Your task to perform on an android device: toggle priority inbox in the gmail app Image 0: 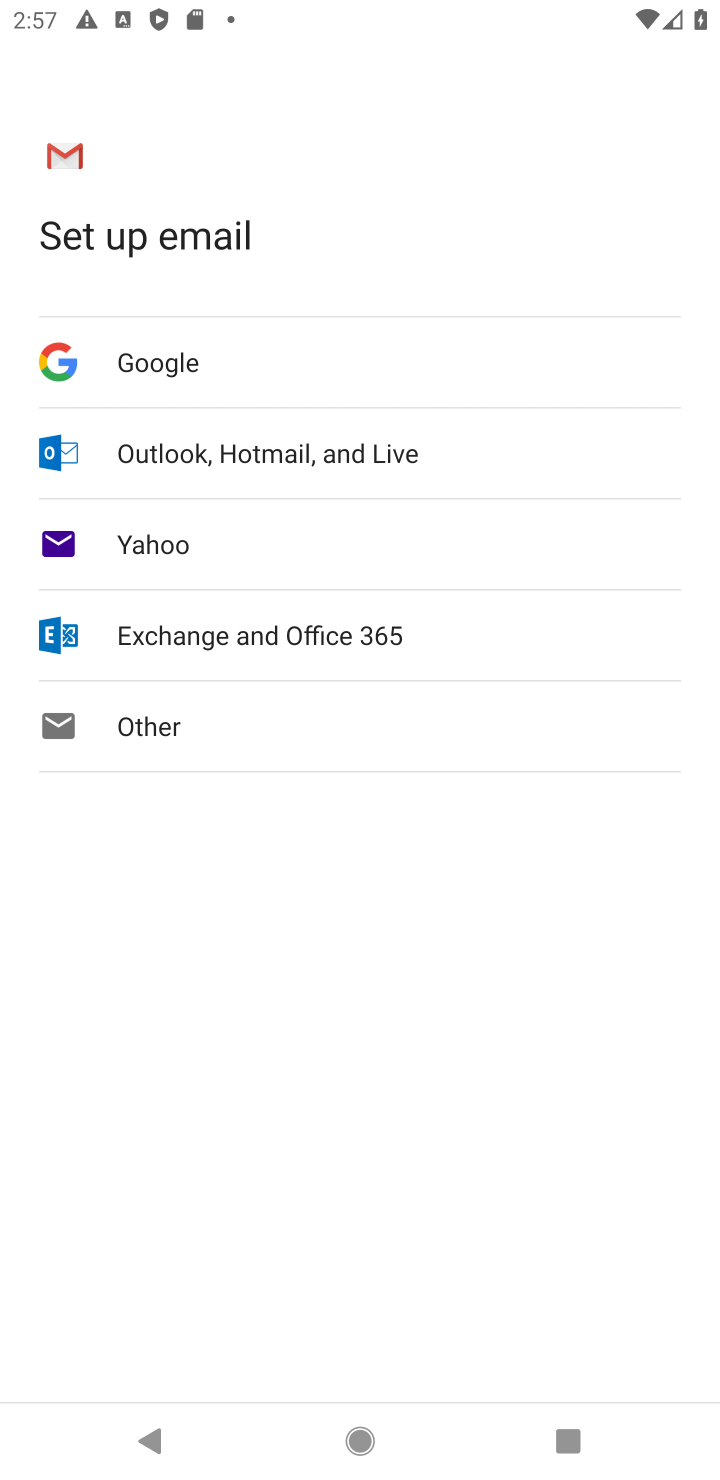
Step 0: press home button
Your task to perform on an android device: toggle priority inbox in the gmail app Image 1: 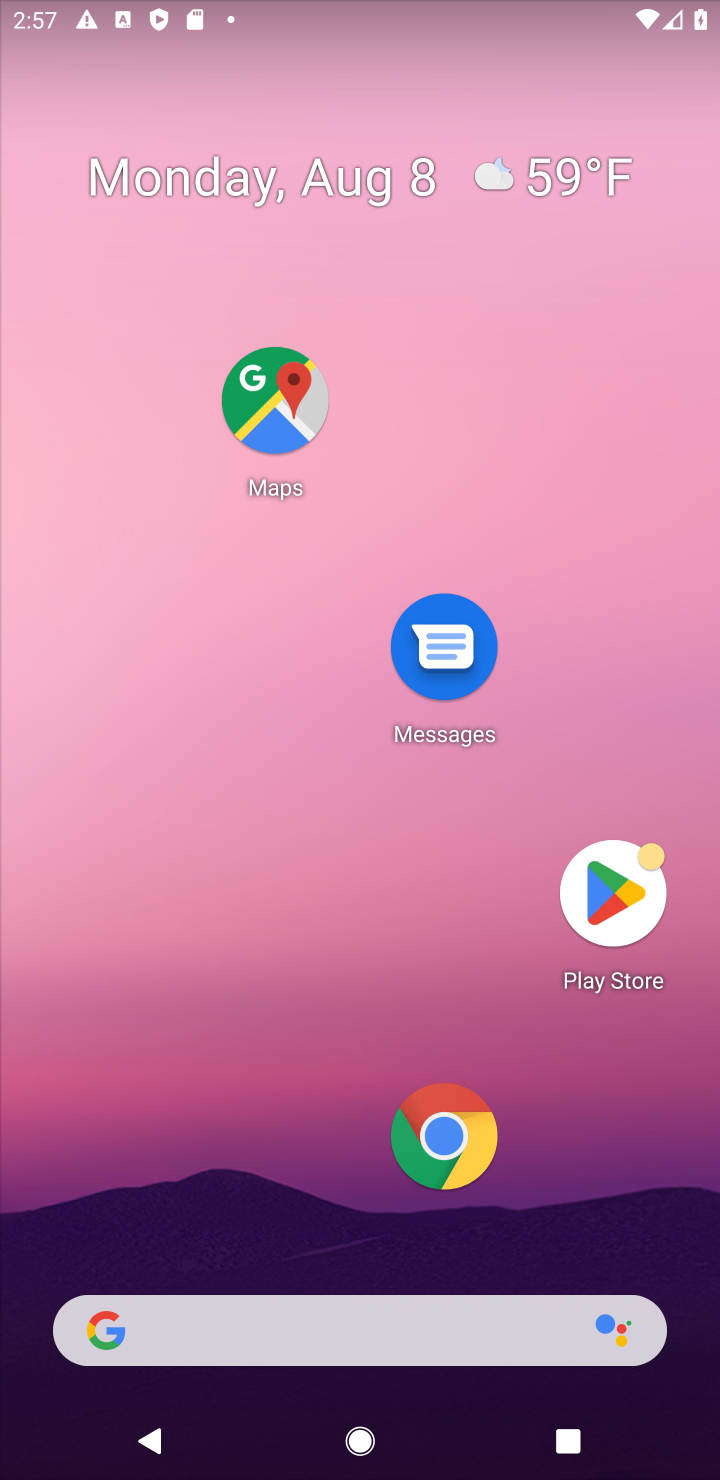
Step 1: drag from (36, 1416) to (588, 437)
Your task to perform on an android device: toggle priority inbox in the gmail app Image 2: 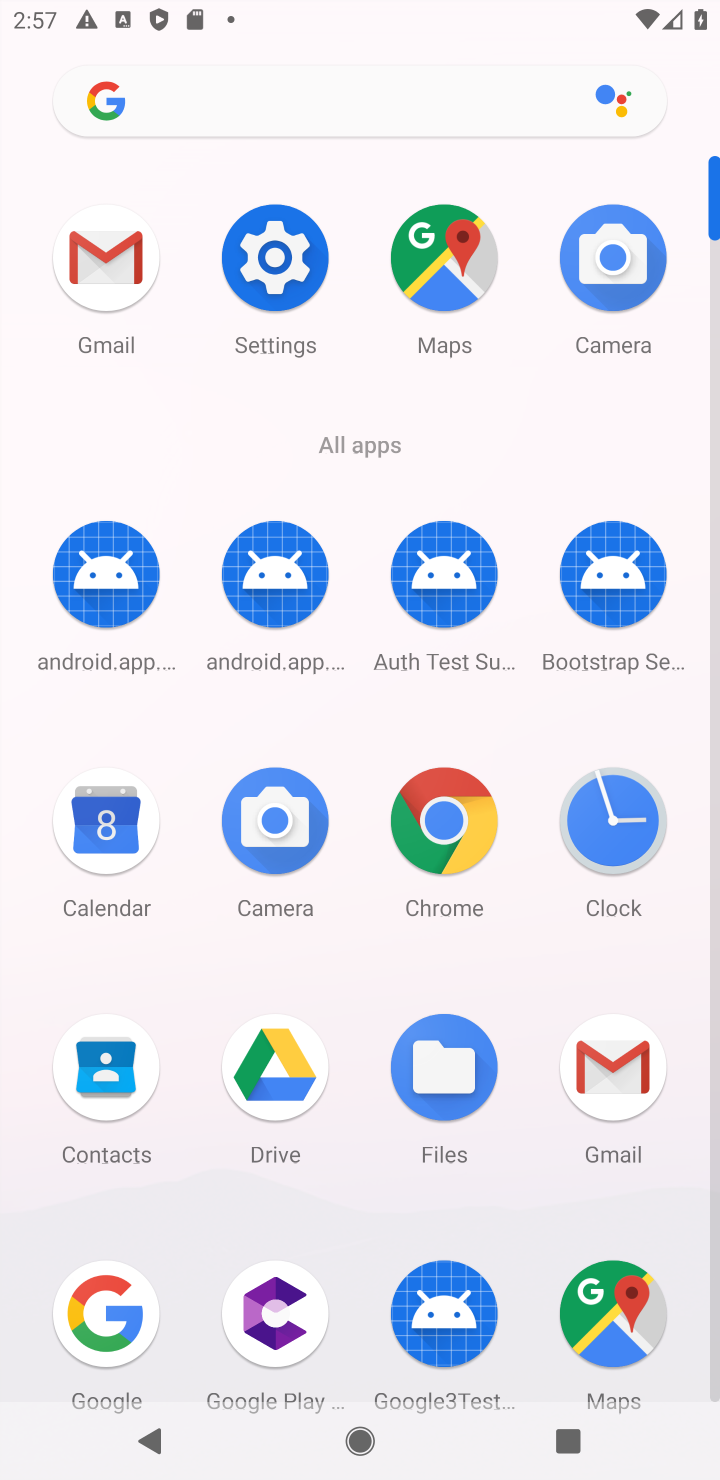
Step 2: click (610, 1048)
Your task to perform on an android device: toggle priority inbox in the gmail app Image 3: 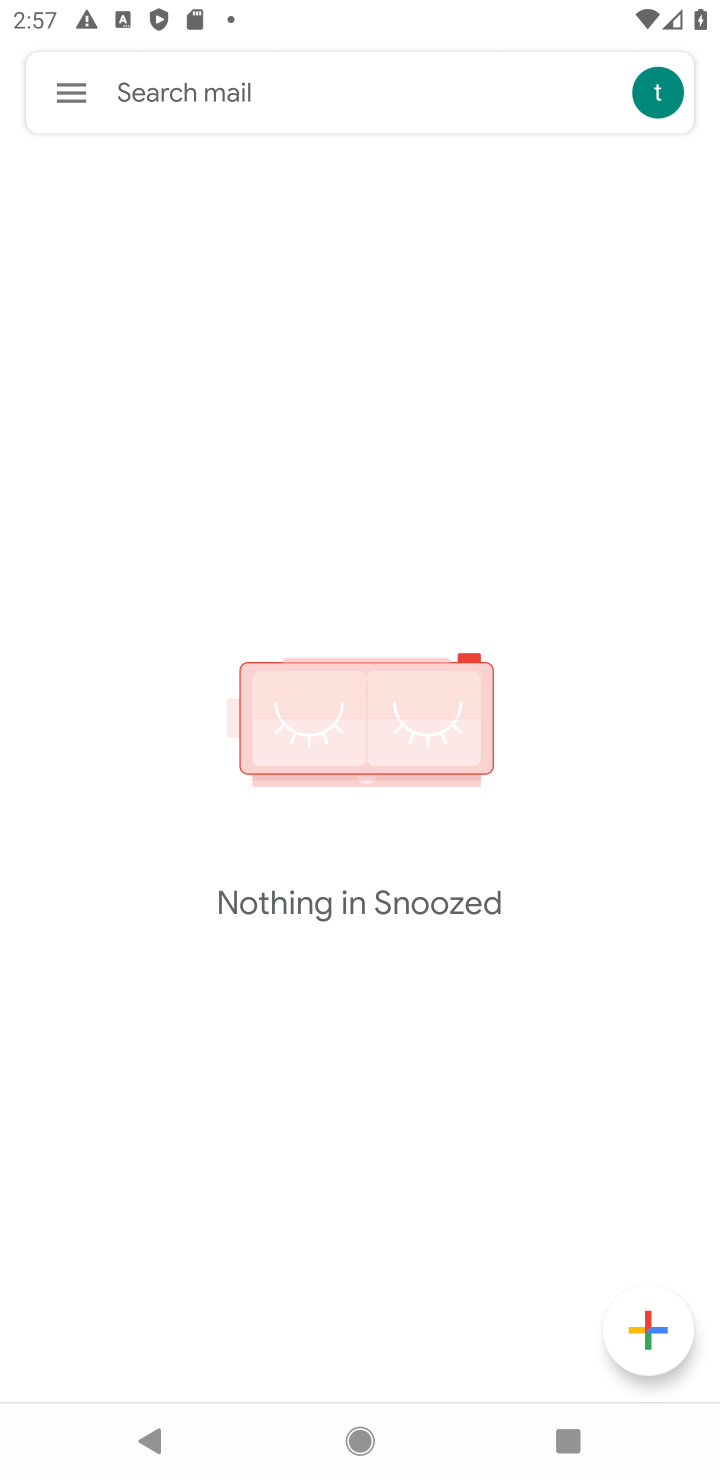
Step 3: click (70, 107)
Your task to perform on an android device: toggle priority inbox in the gmail app Image 4: 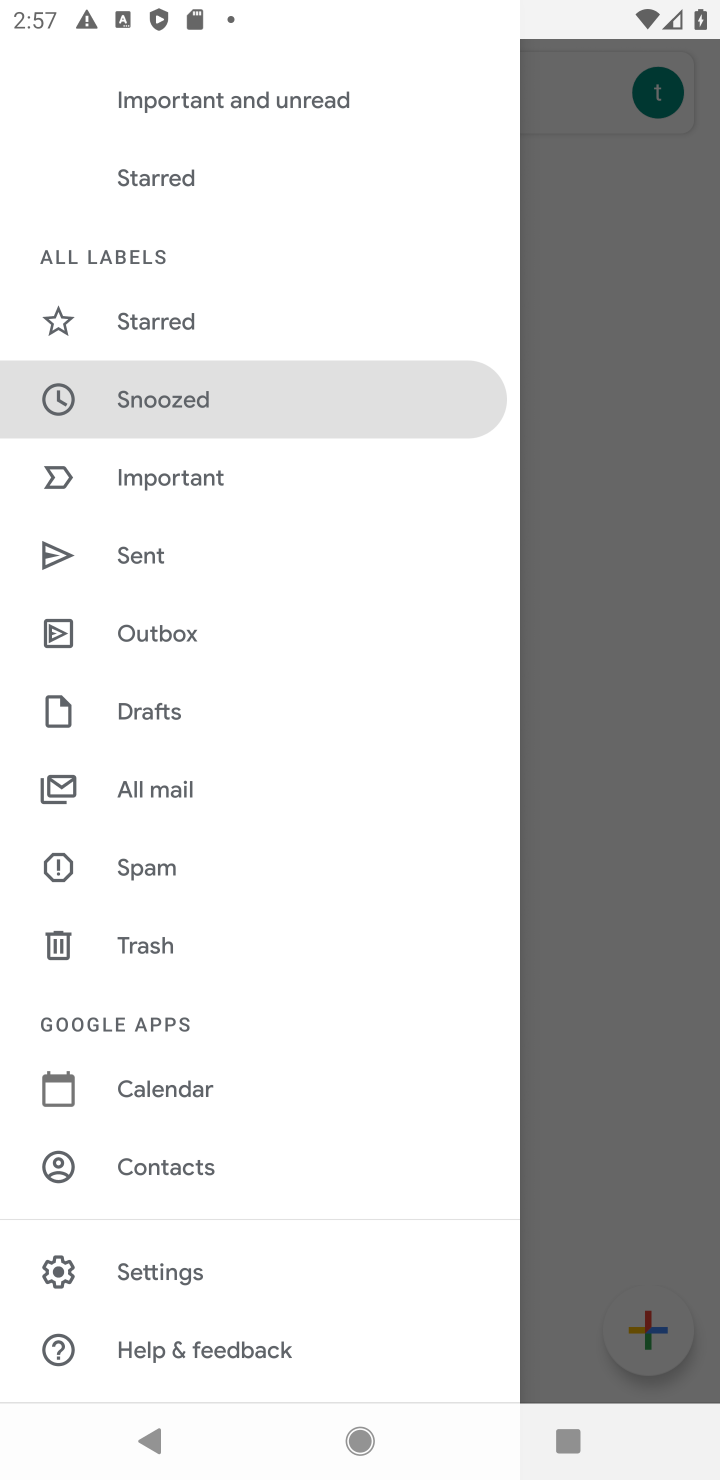
Step 4: click (128, 1274)
Your task to perform on an android device: toggle priority inbox in the gmail app Image 5: 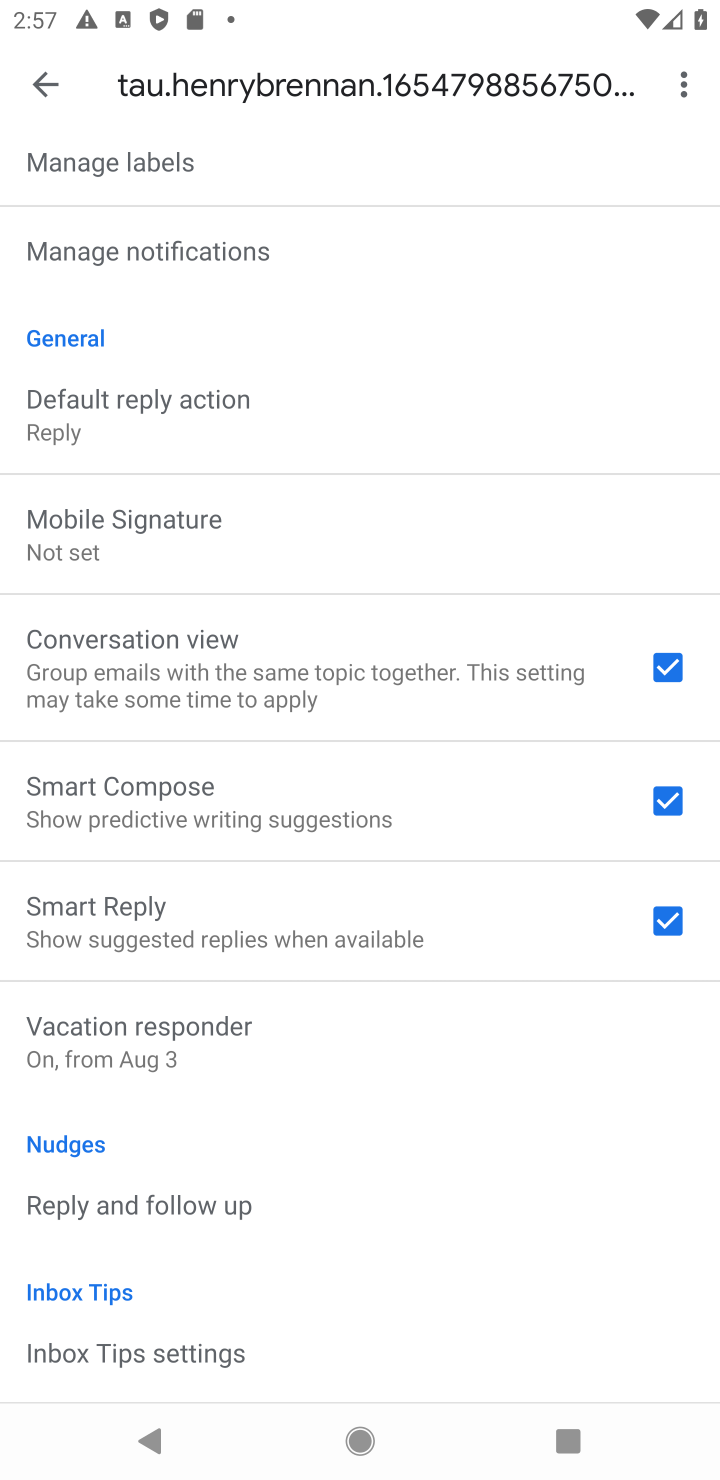
Step 5: task complete